Your task to perform on an android device: find photos in the google photos app Image 0: 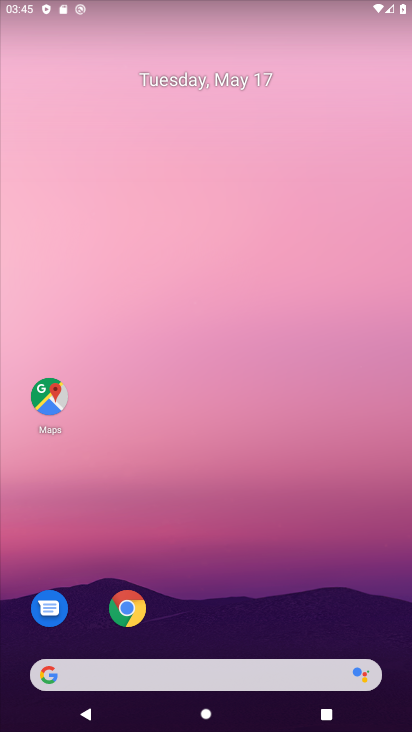
Step 0: drag from (276, 655) to (325, 176)
Your task to perform on an android device: find photos in the google photos app Image 1: 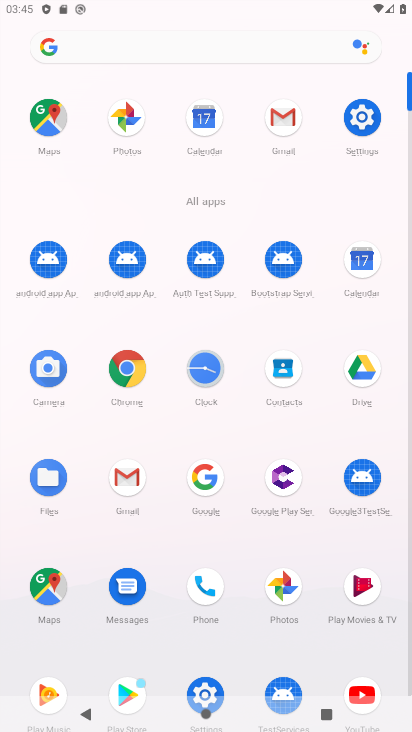
Step 1: click (282, 596)
Your task to perform on an android device: find photos in the google photos app Image 2: 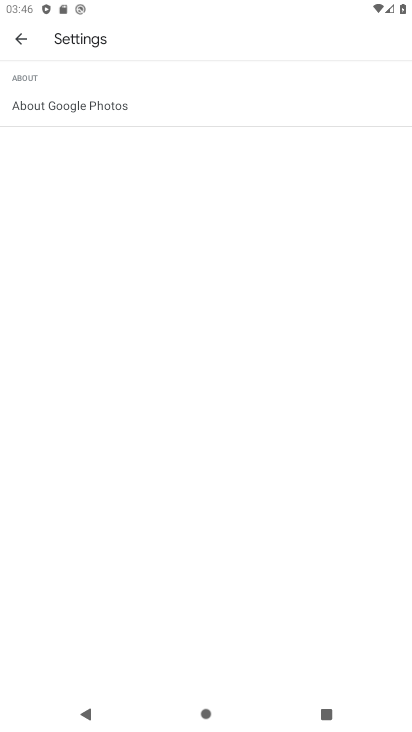
Step 2: click (12, 42)
Your task to perform on an android device: find photos in the google photos app Image 3: 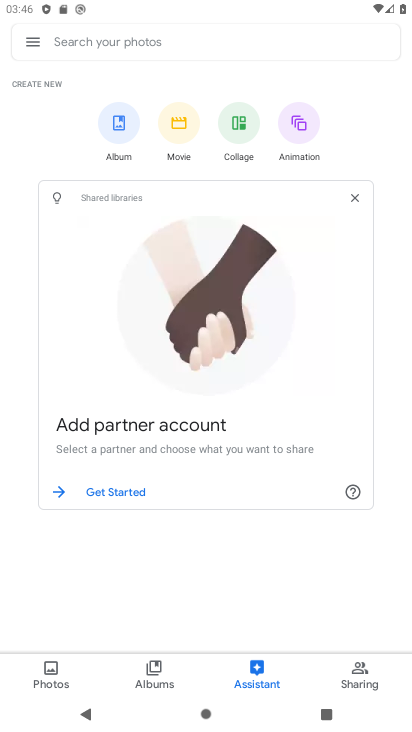
Step 3: click (124, 45)
Your task to perform on an android device: find photos in the google photos app Image 4: 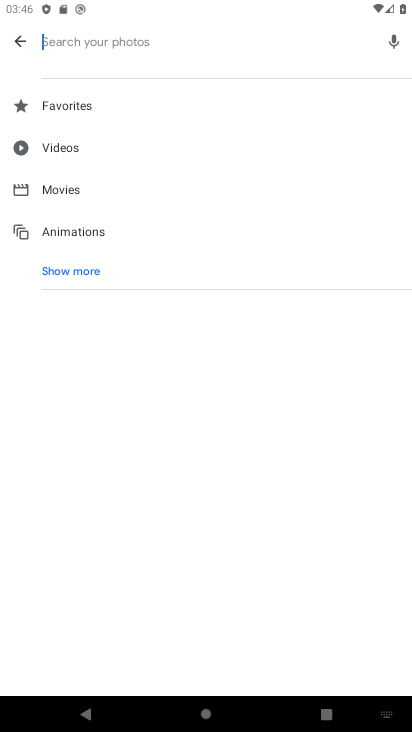
Step 4: type "album 09"
Your task to perform on an android device: find photos in the google photos app Image 5: 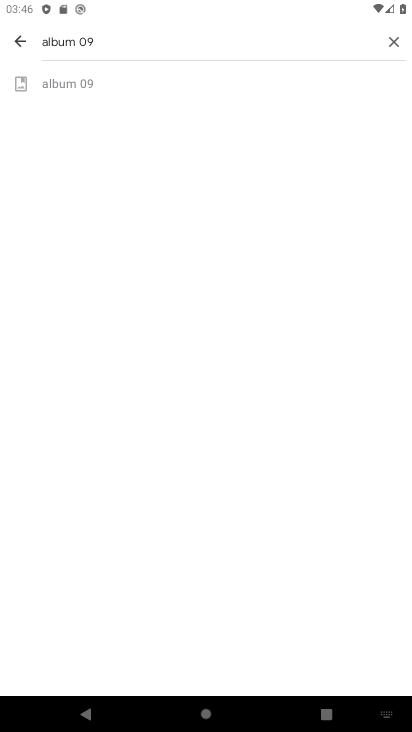
Step 5: click (75, 81)
Your task to perform on an android device: find photos in the google photos app Image 6: 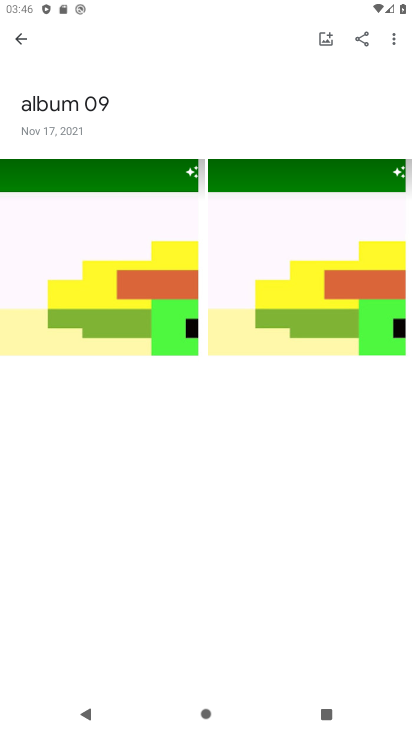
Step 6: task complete